Your task to perform on an android device: Turn off the flashlight Image 0: 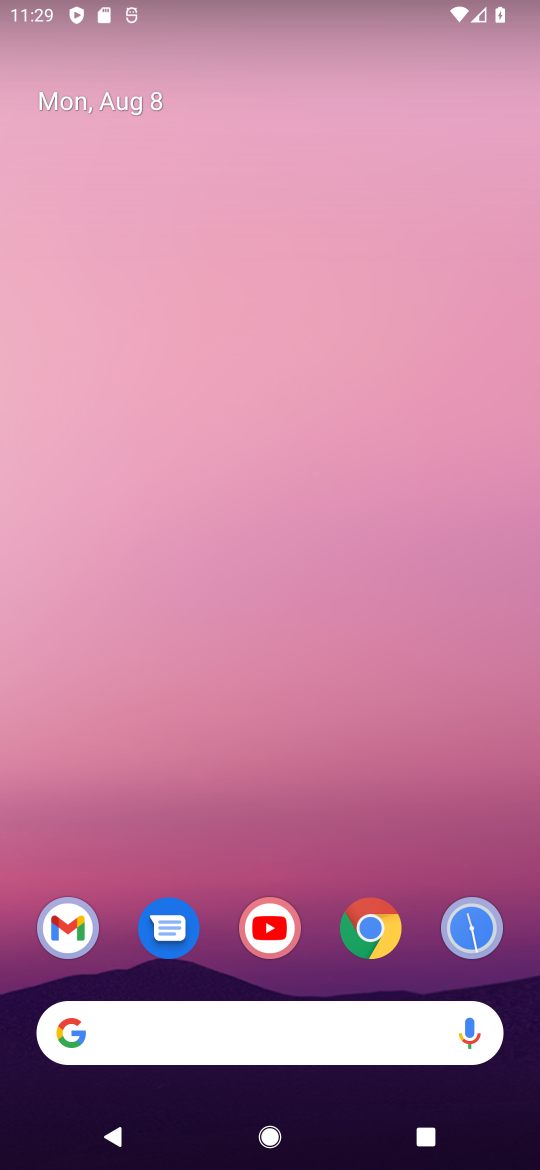
Step 0: press home button
Your task to perform on an android device: Turn off the flashlight Image 1: 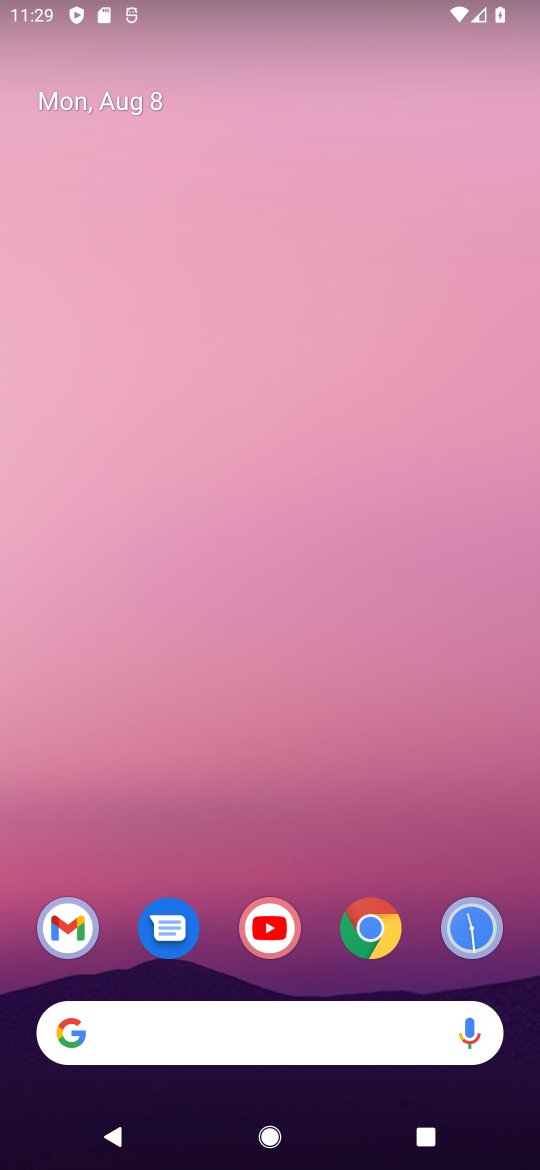
Step 1: drag from (331, 1075) to (337, 275)
Your task to perform on an android device: Turn off the flashlight Image 2: 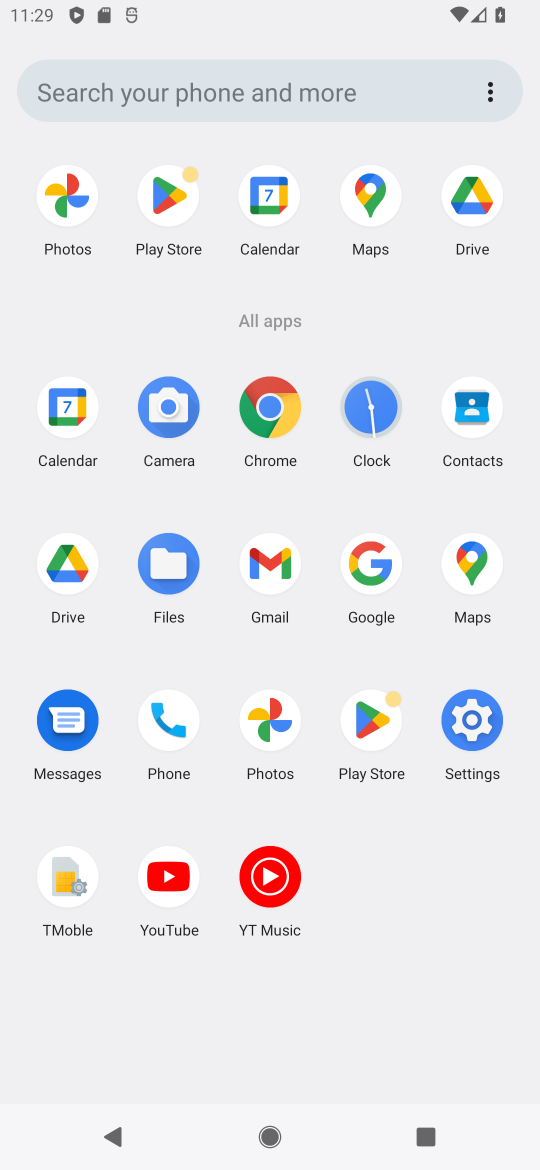
Step 2: drag from (466, 704) to (435, 922)
Your task to perform on an android device: Turn off the flashlight Image 3: 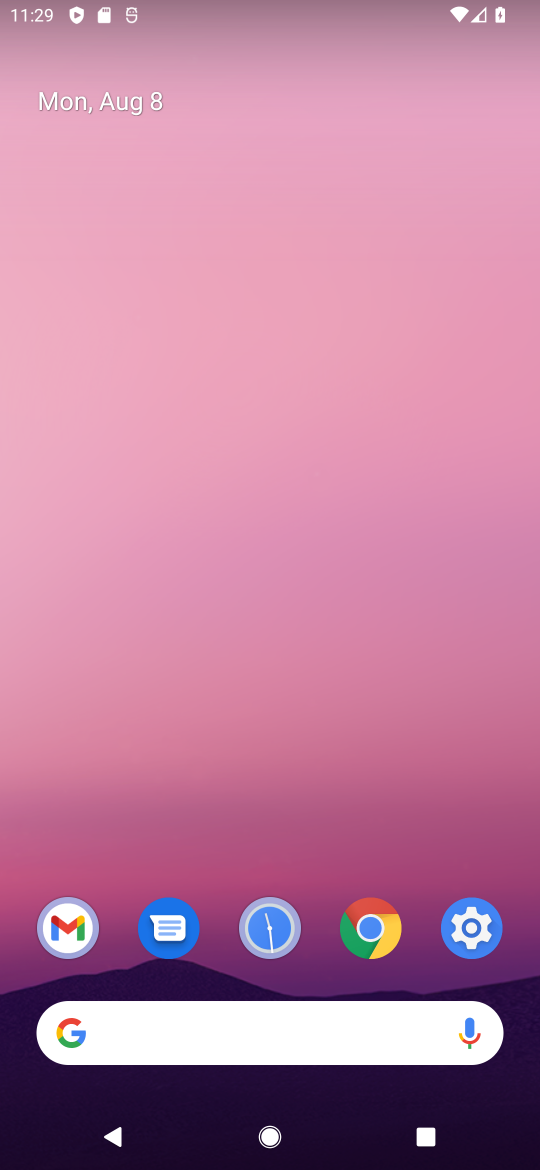
Step 3: click (477, 926)
Your task to perform on an android device: Turn off the flashlight Image 4: 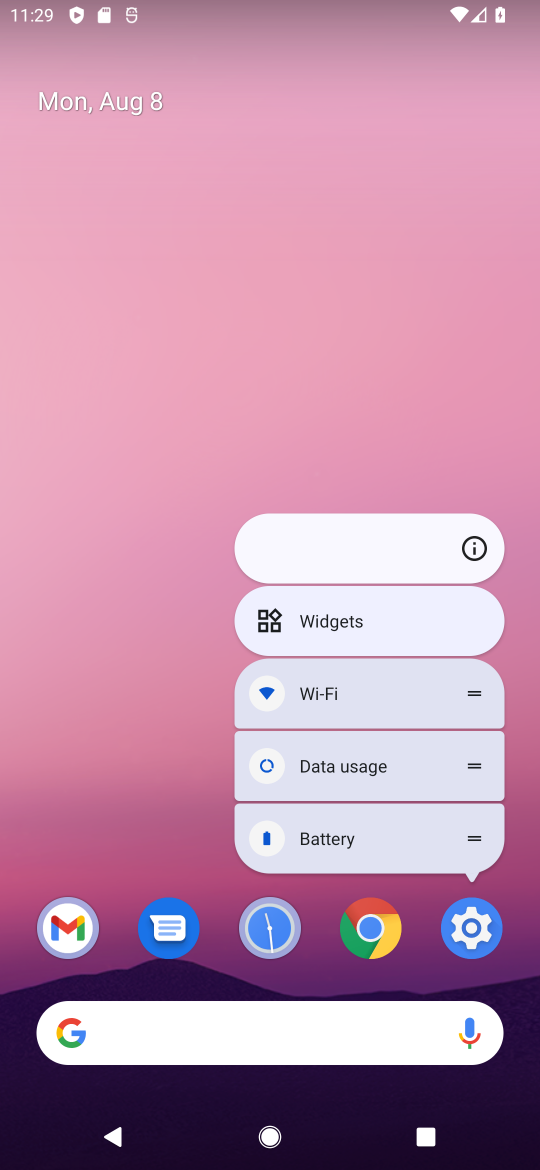
Step 4: click (472, 935)
Your task to perform on an android device: Turn off the flashlight Image 5: 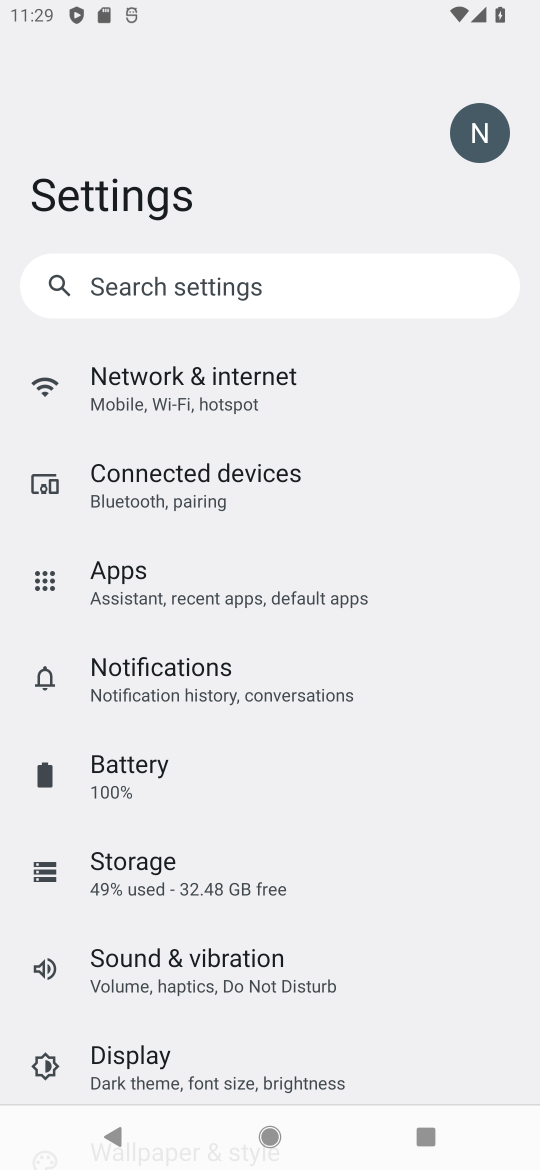
Step 5: click (205, 300)
Your task to perform on an android device: Turn off the flashlight Image 6: 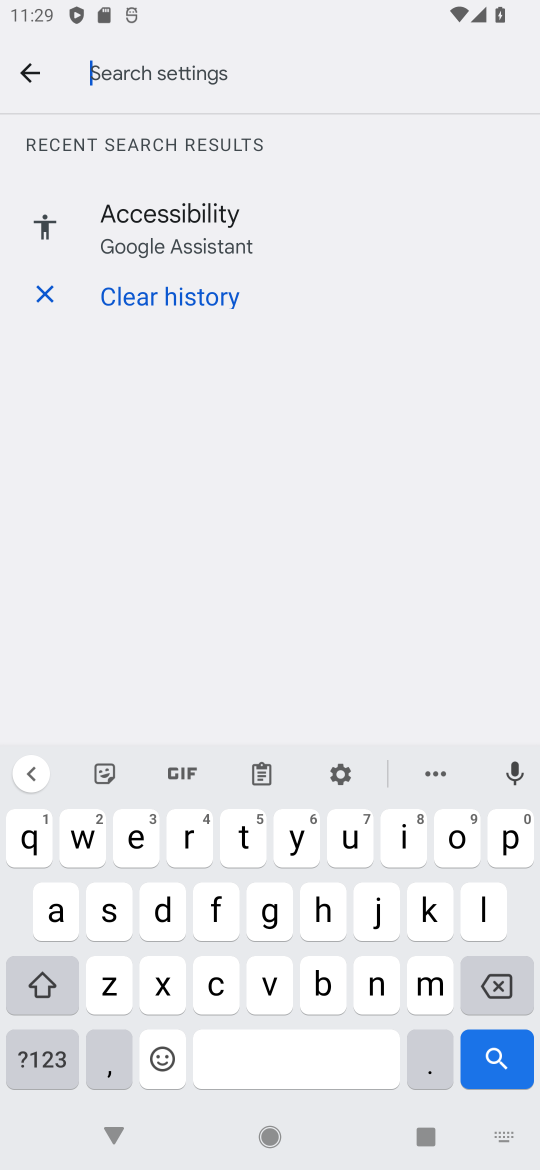
Step 6: click (211, 892)
Your task to perform on an android device: Turn off the flashlight Image 7: 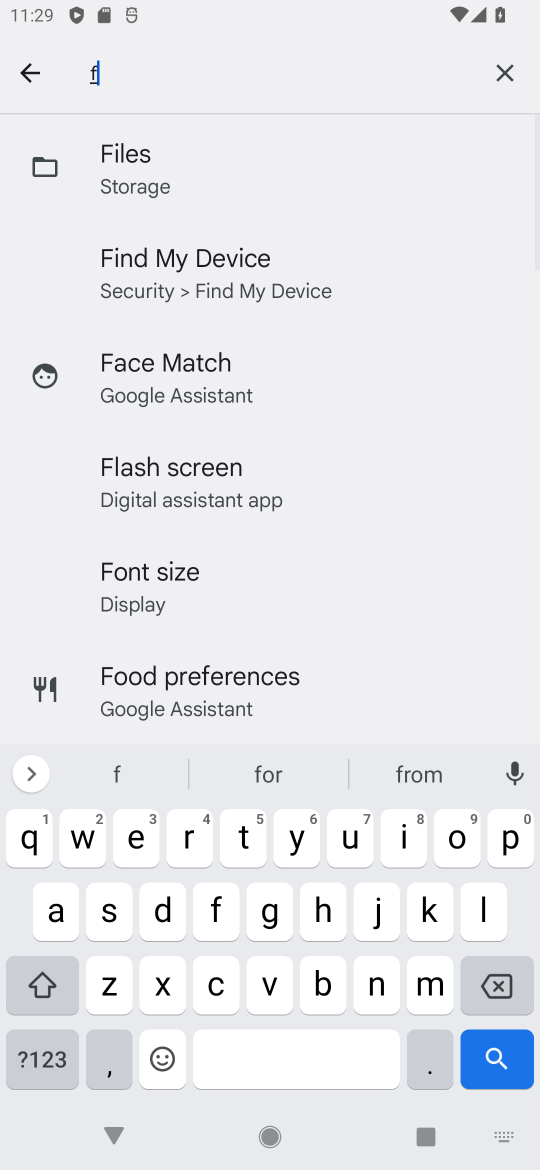
Step 7: click (485, 916)
Your task to perform on an android device: Turn off the flashlight Image 8: 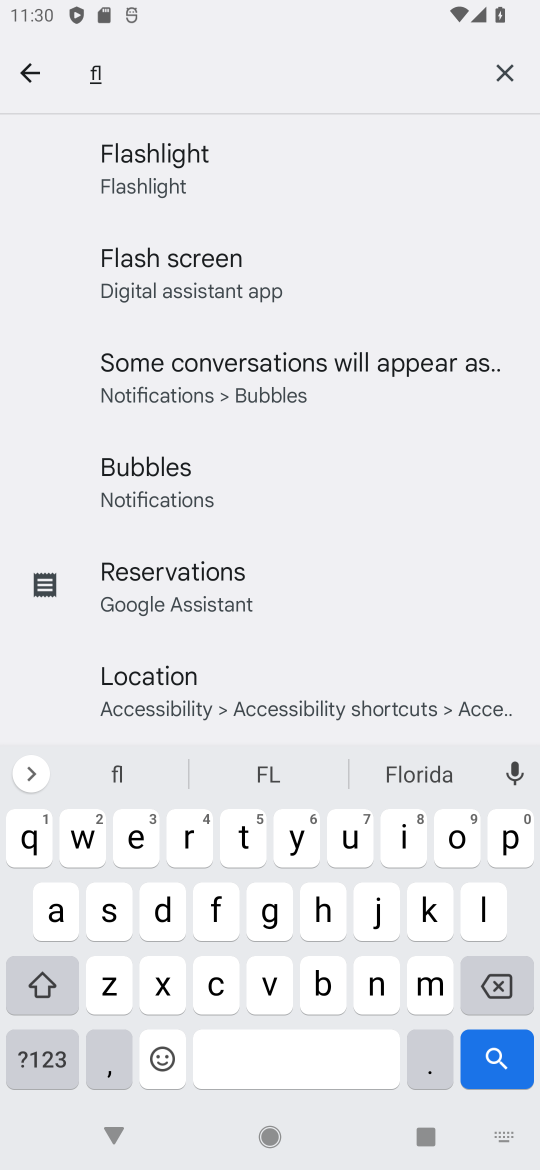
Step 8: click (271, 177)
Your task to perform on an android device: Turn off the flashlight Image 9: 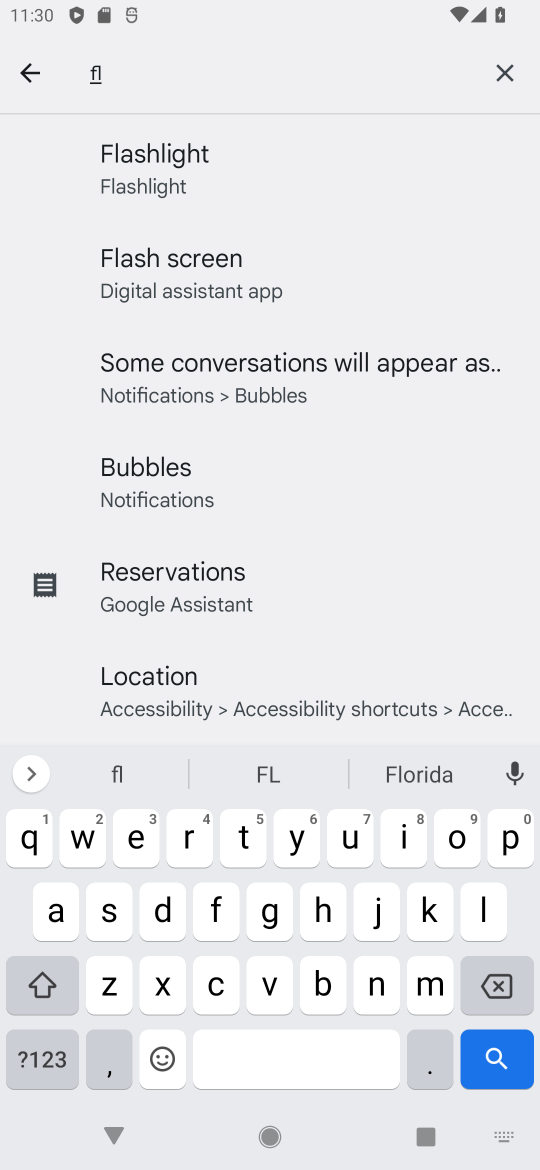
Step 9: click (169, 172)
Your task to perform on an android device: Turn off the flashlight Image 10: 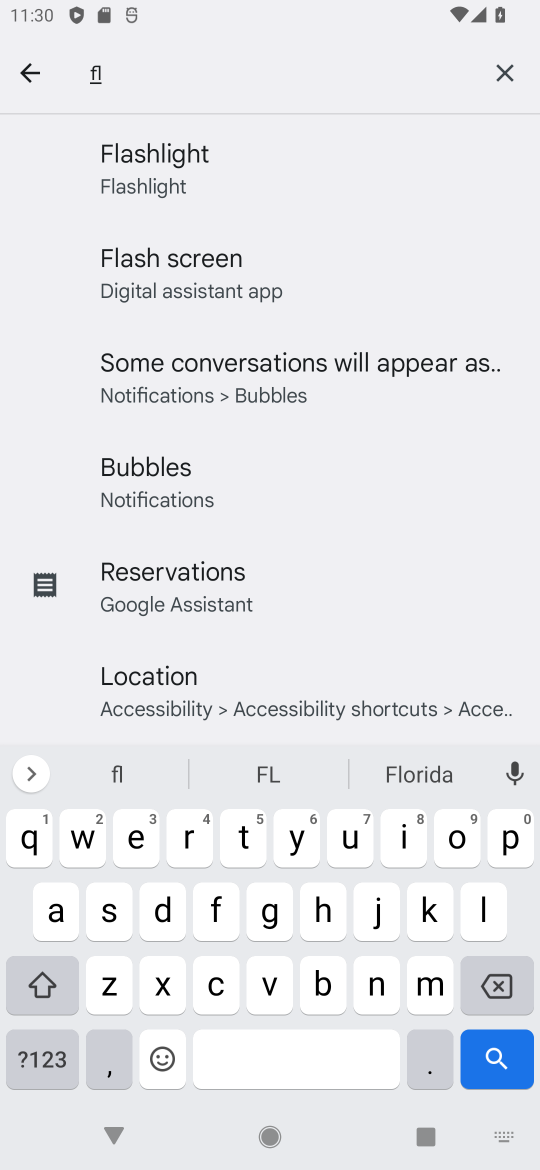
Step 10: task complete